Your task to perform on an android device: Open notification settings Image 0: 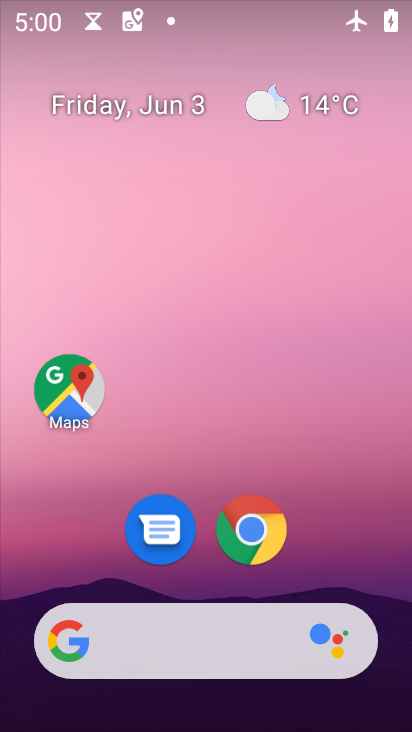
Step 0: drag from (321, 368) to (269, 1)
Your task to perform on an android device: Open notification settings Image 1: 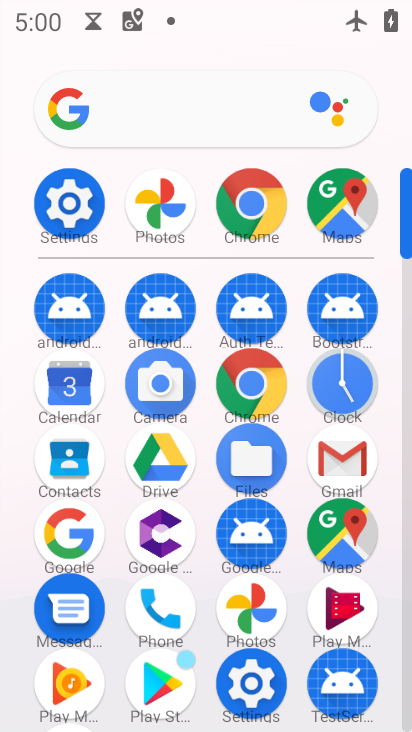
Step 1: click (88, 226)
Your task to perform on an android device: Open notification settings Image 2: 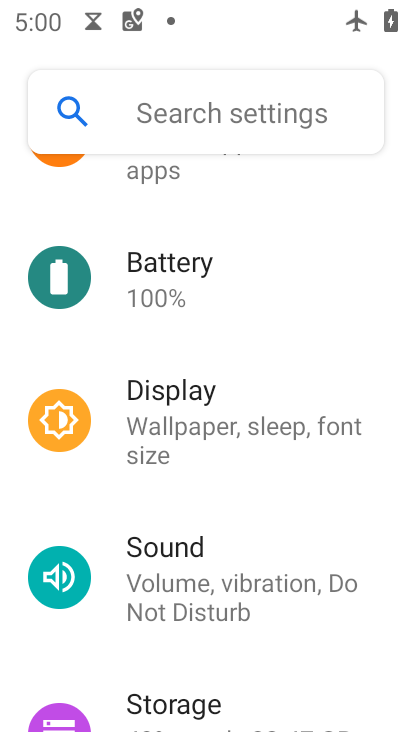
Step 2: drag from (298, 311) to (307, 701)
Your task to perform on an android device: Open notification settings Image 3: 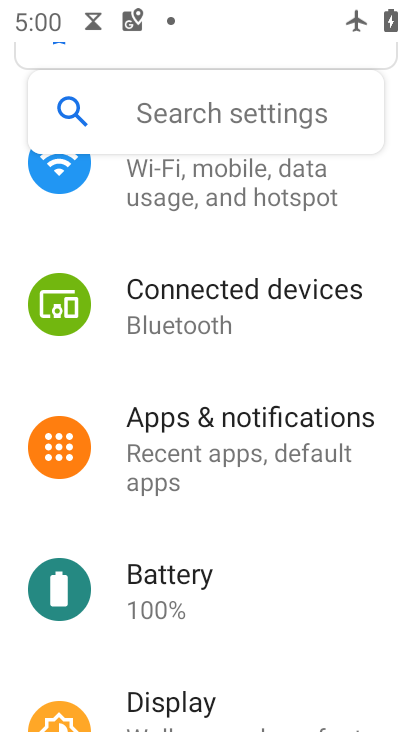
Step 3: drag from (273, 298) to (258, 699)
Your task to perform on an android device: Open notification settings Image 4: 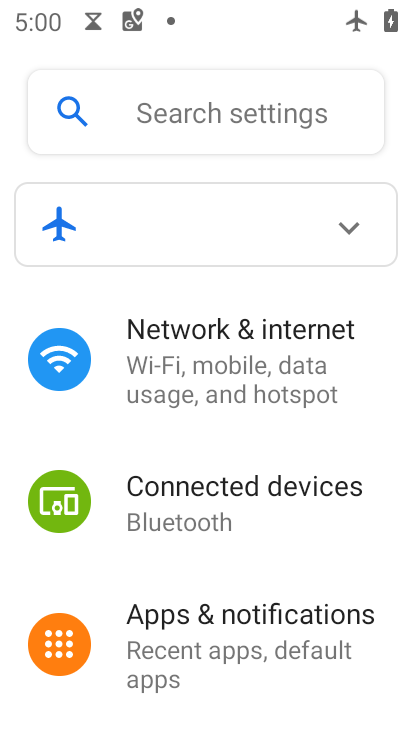
Step 4: click (298, 632)
Your task to perform on an android device: Open notification settings Image 5: 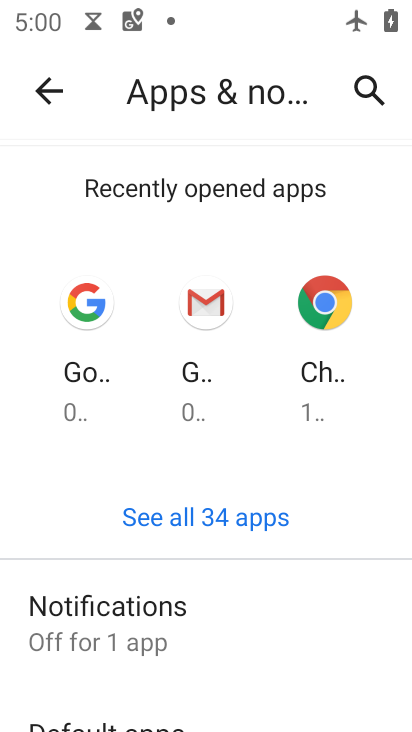
Step 5: click (125, 618)
Your task to perform on an android device: Open notification settings Image 6: 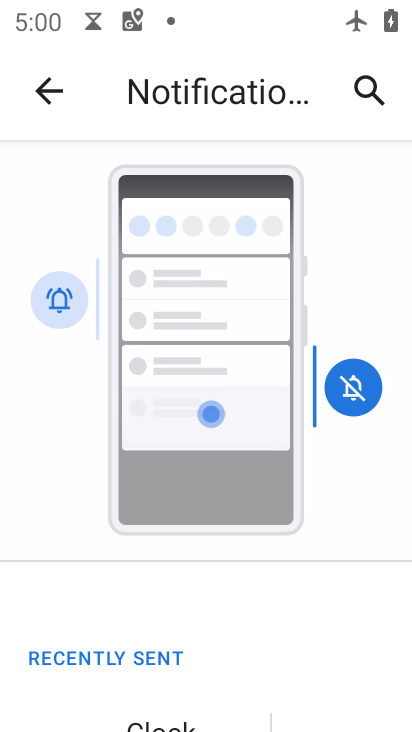
Step 6: task complete